Your task to perform on an android device: Go to eBay Image 0: 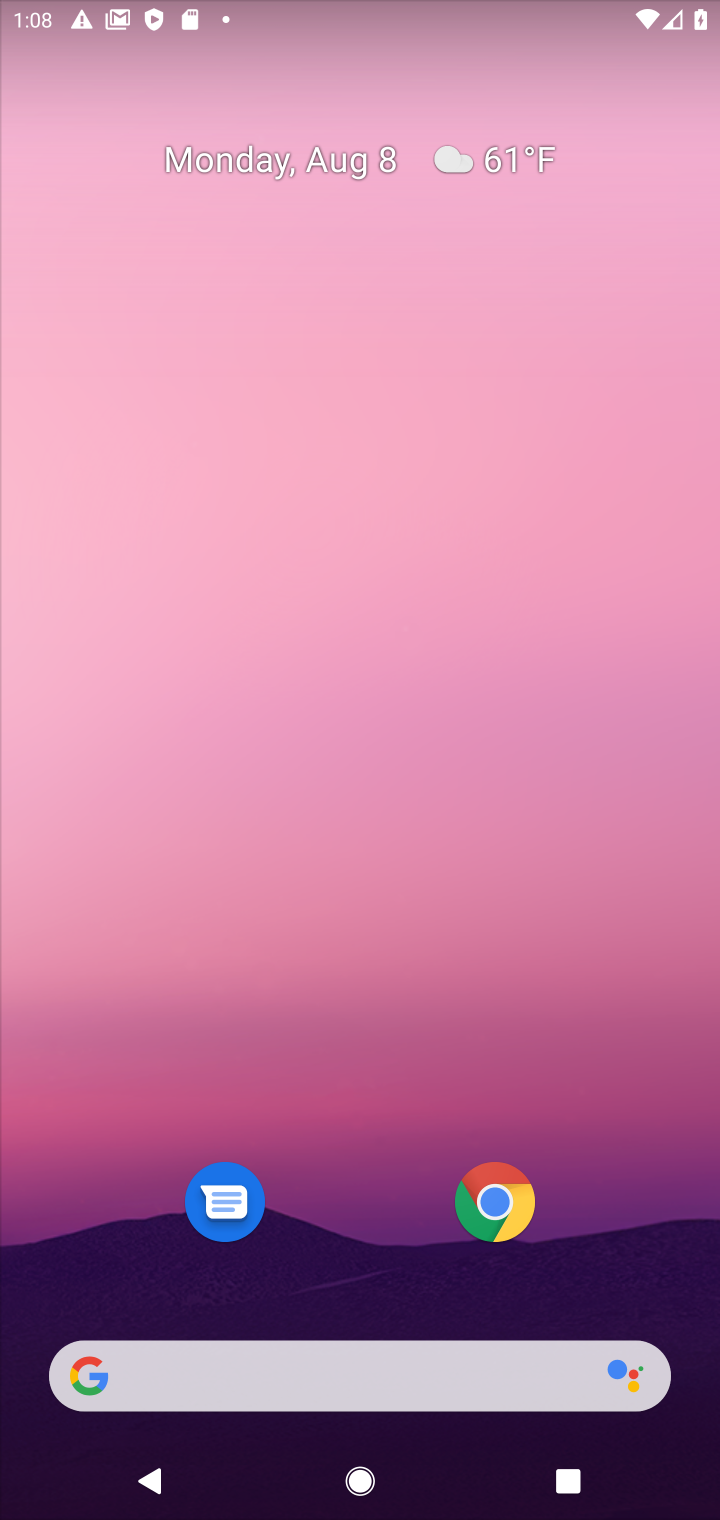
Step 0: press home button
Your task to perform on an android device: Go to eBay Image 1: 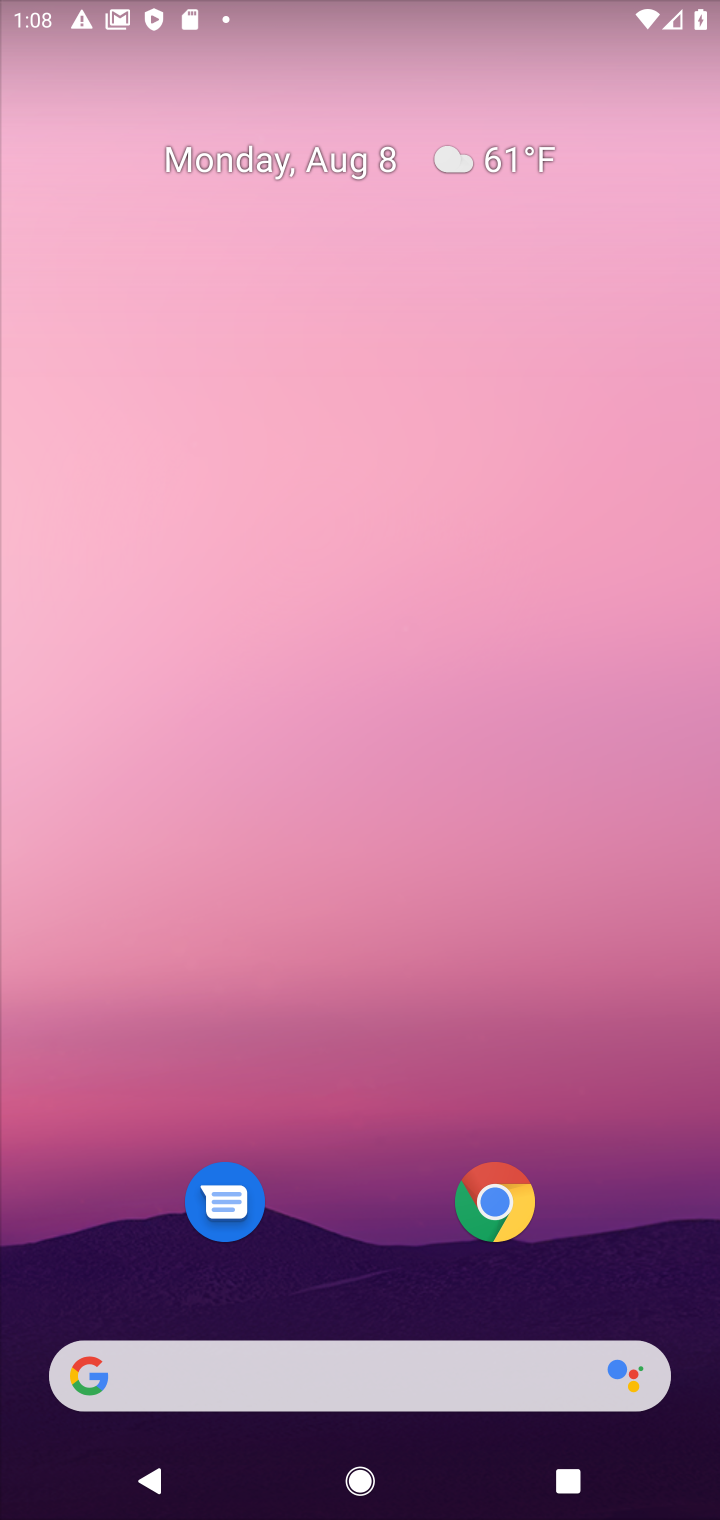
Step 1: drag from (358, 1159) to (403, 318)
Your task to perform on an android device: Go to eBay Image 2: 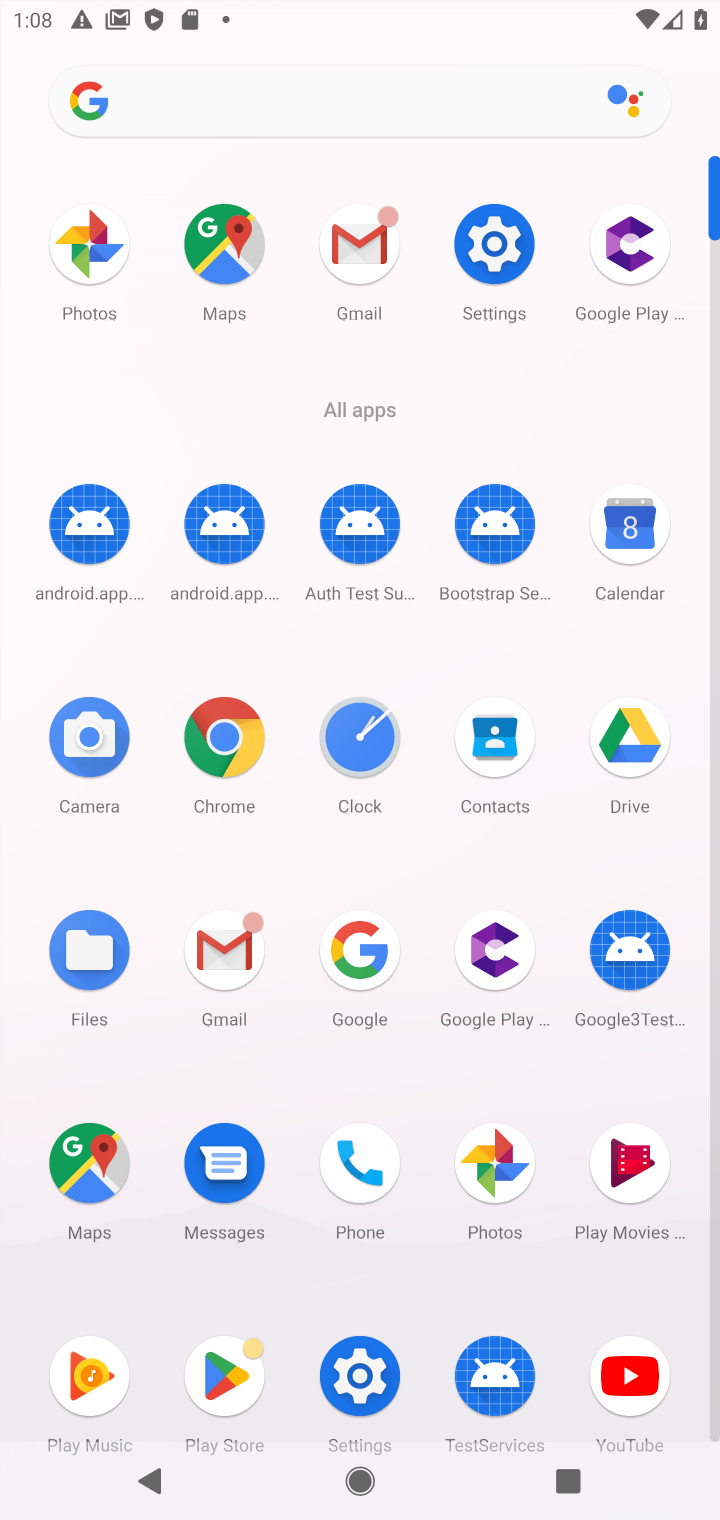
Step 2: click (234, 735)
Your task to perform on an android device: Go to eBay Image 3: 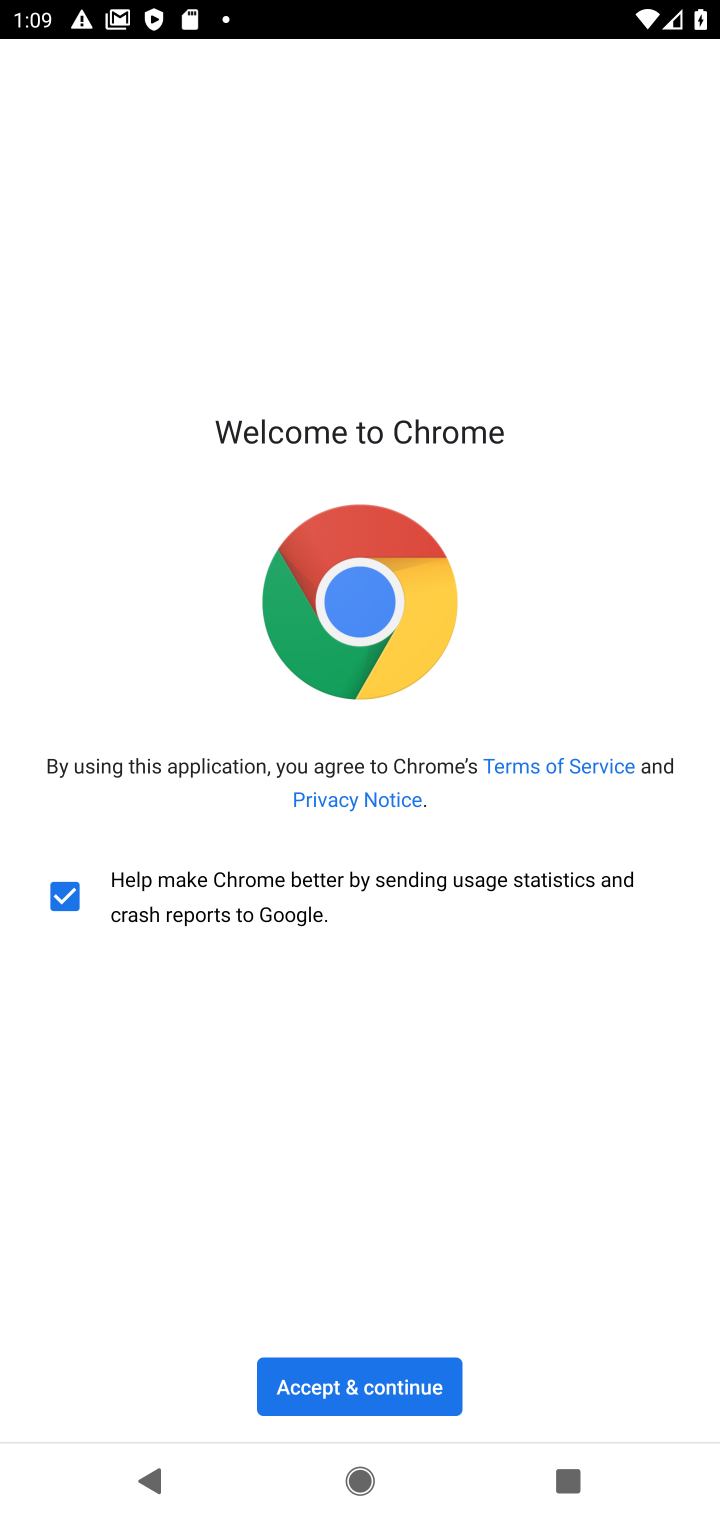
Step 3: click (341, 1372)
Your task to perform on an android device: Go to eBay Image 4: 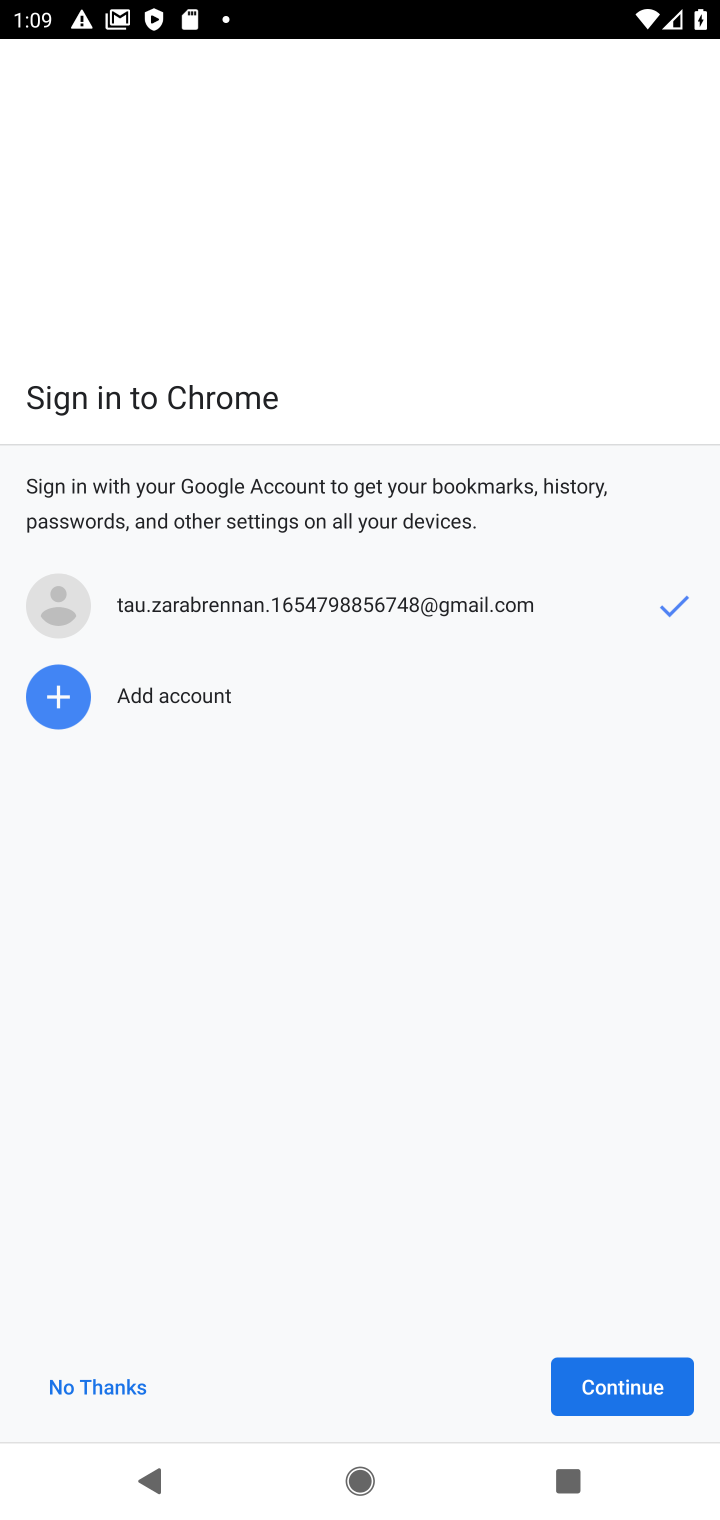
Step 4: click (637, 1381)
Your task to perform on an android device: Go to eBay Image 5: 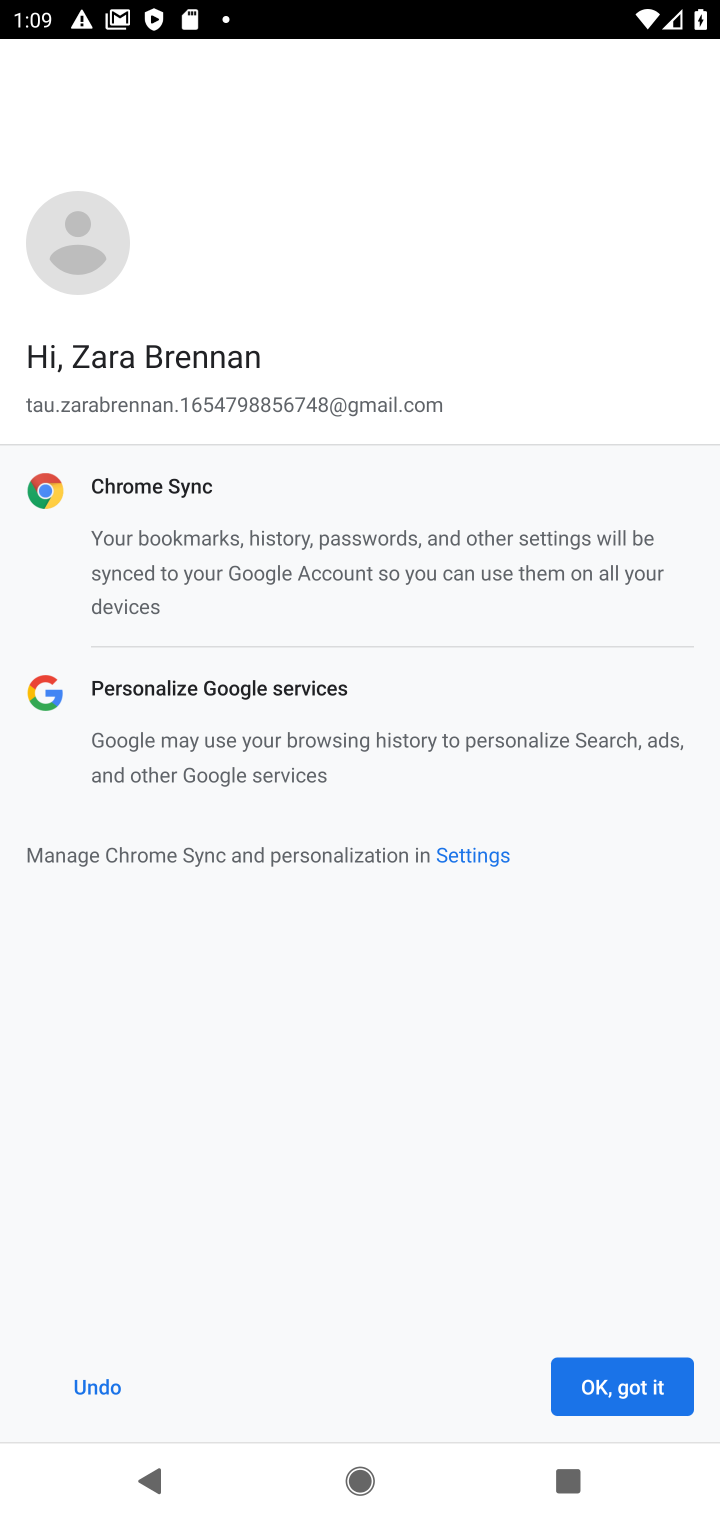
Step 5: click (665, 1400)
Your task to perform on an android device: Go to eBay Image 6: 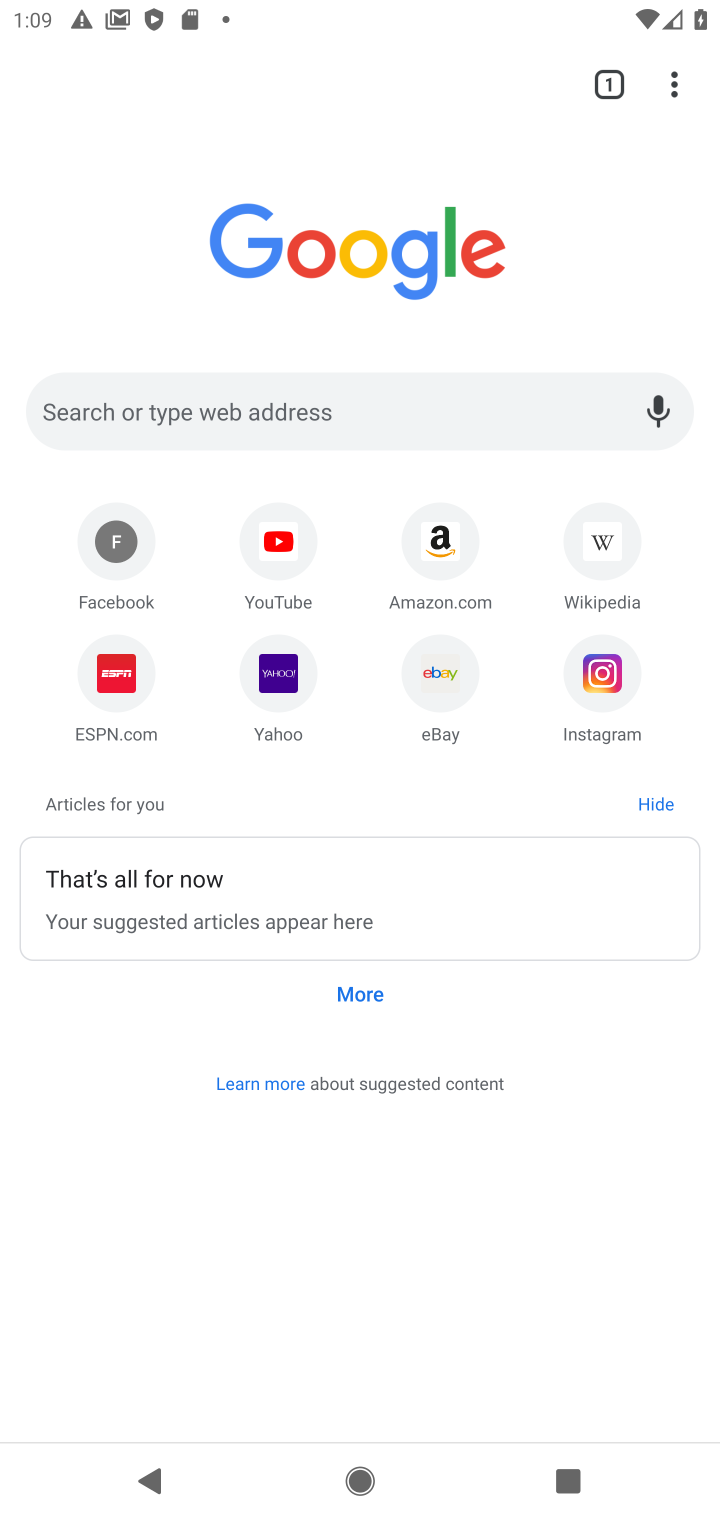
Step 6: click (492, 410)
Your task to perform on an android device: Go to eBay Image 7: 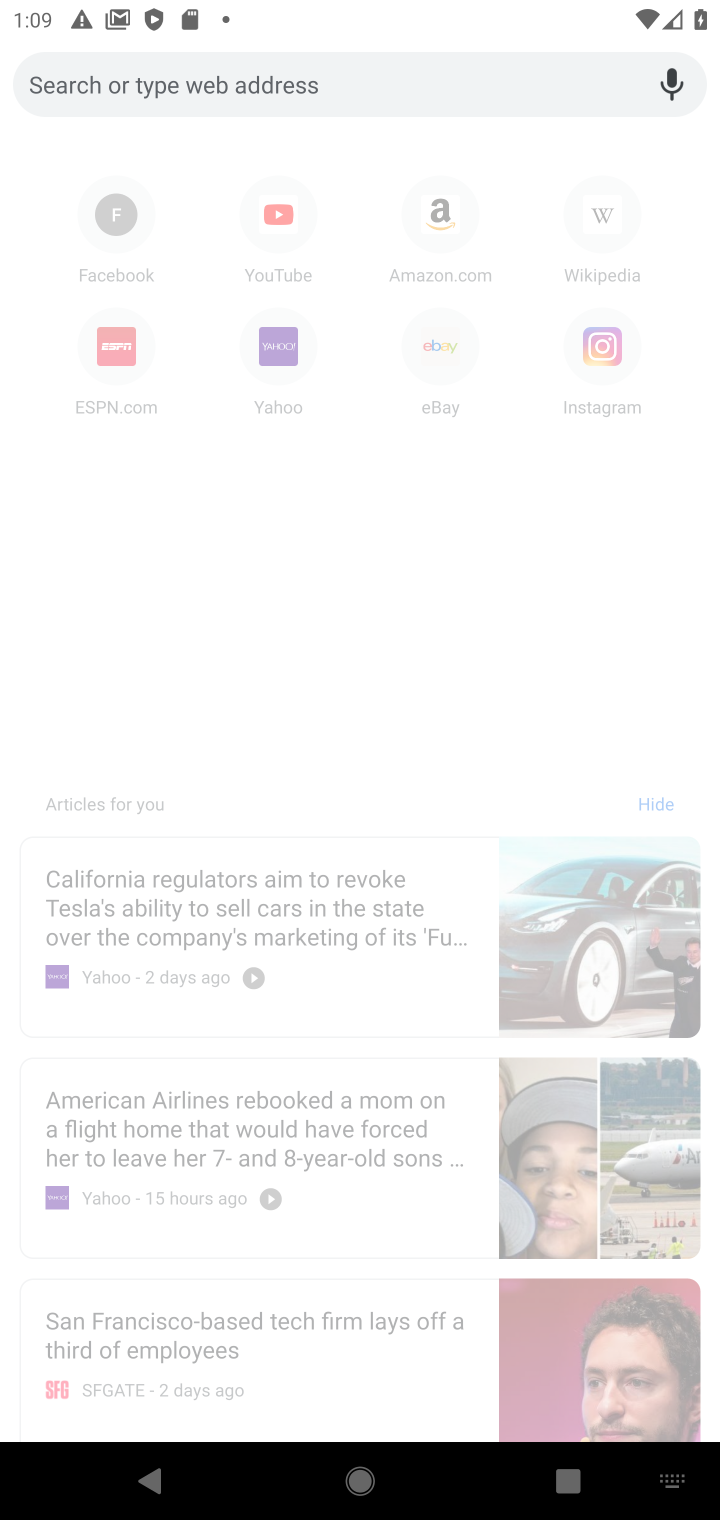
Step 7: click (425, 77)
Your task to perform on an android device: Go to eBay Image 8: 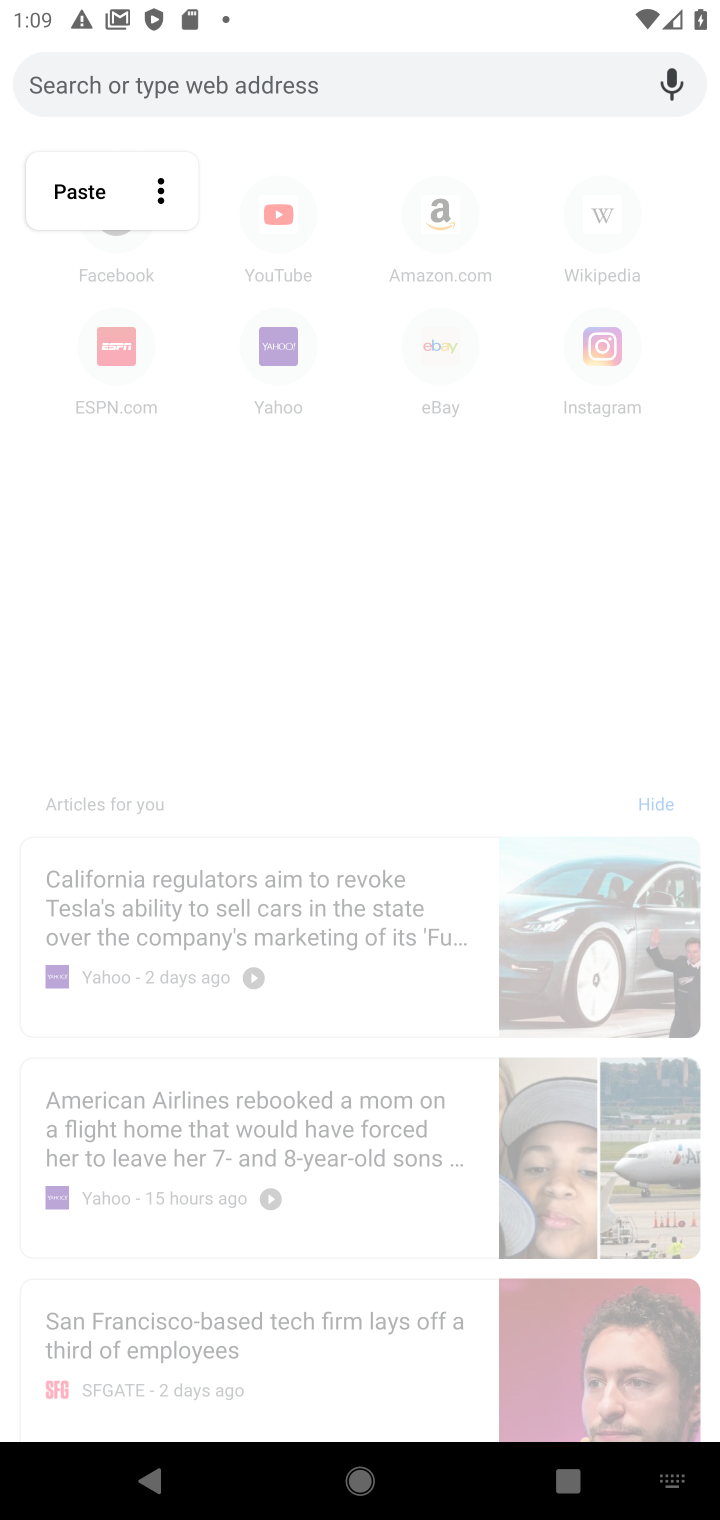
Step 8: type "ebay"
Your task to perform on an android device: Go to eBay Image 9: 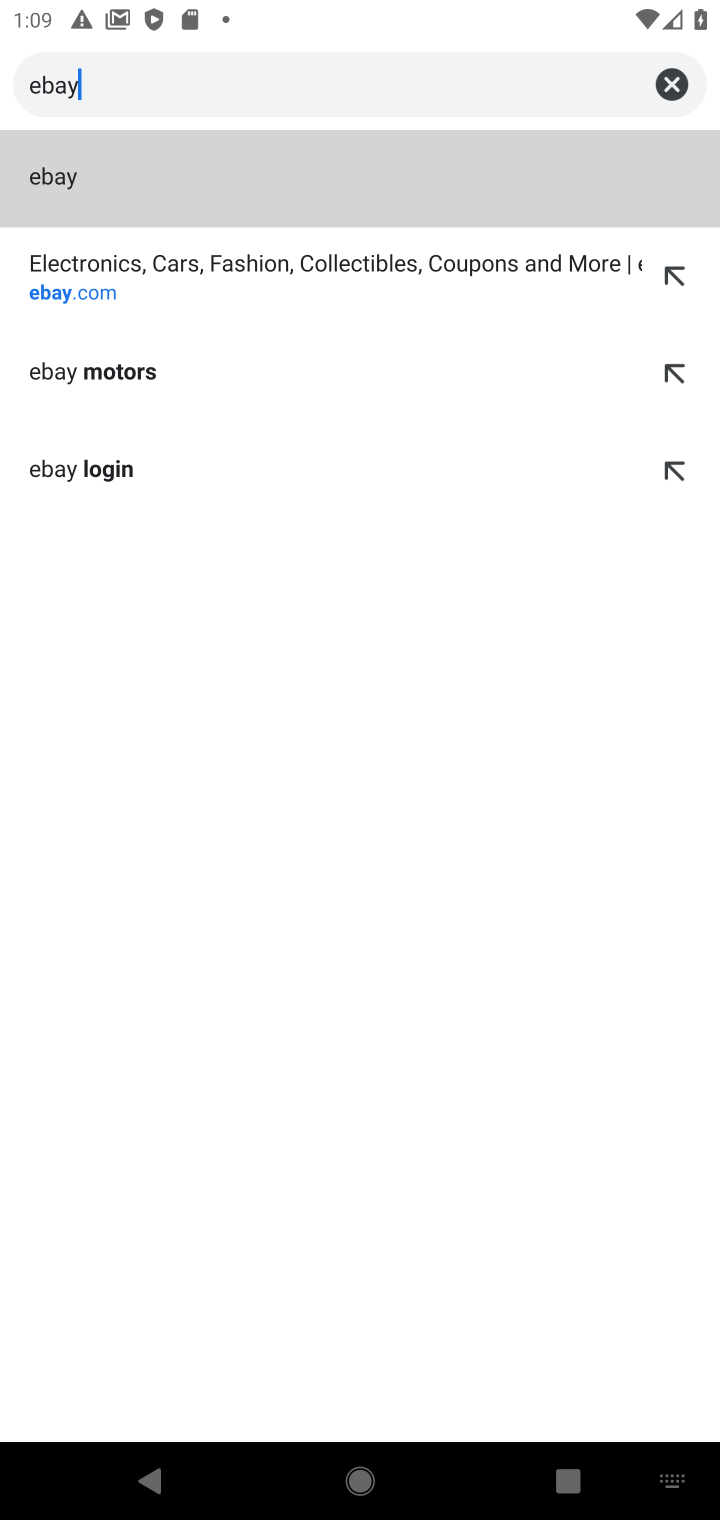
Step 9: click (310, 271)
Your task to perform on an android device: Go to eBay Image 10: 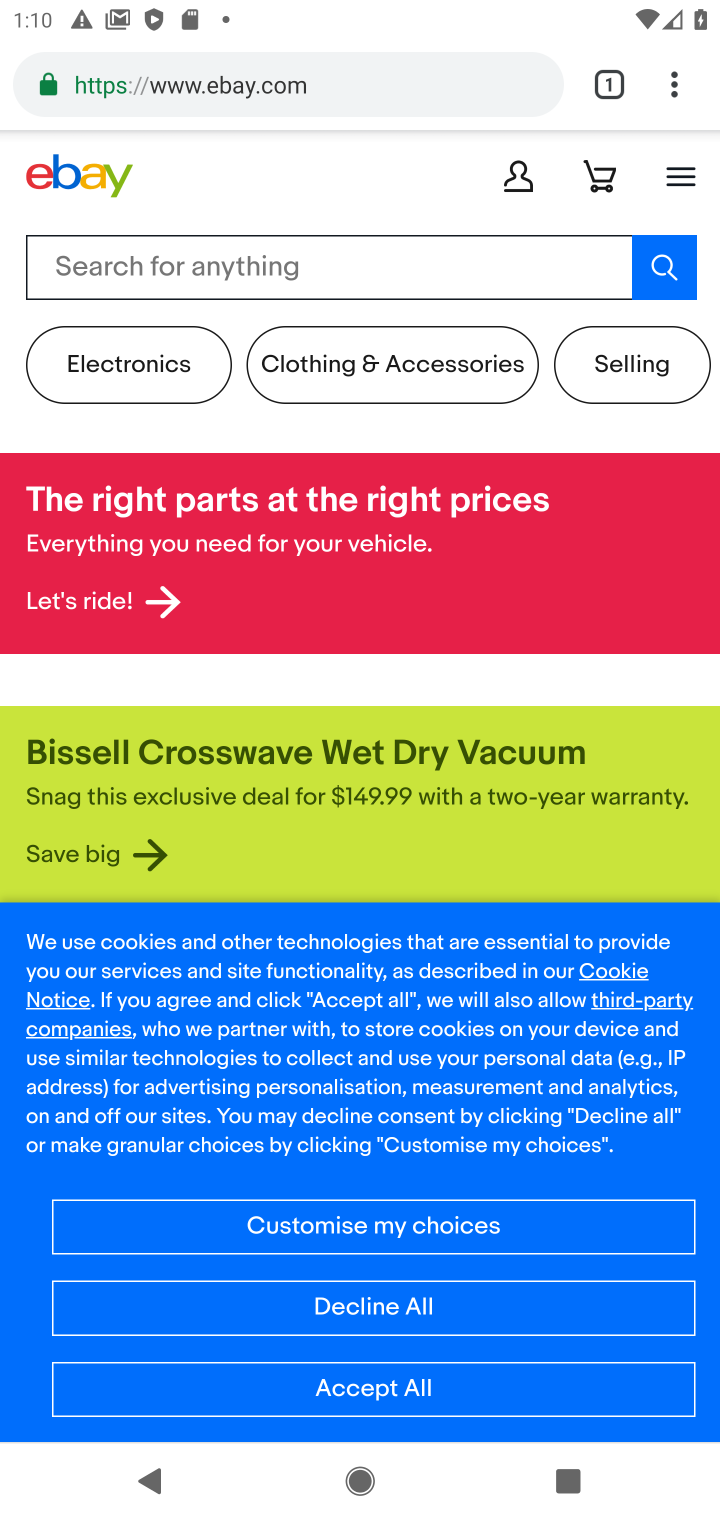
Step 10: task complete